Your task to perform on an android device: Open Reddit.com Image 0: 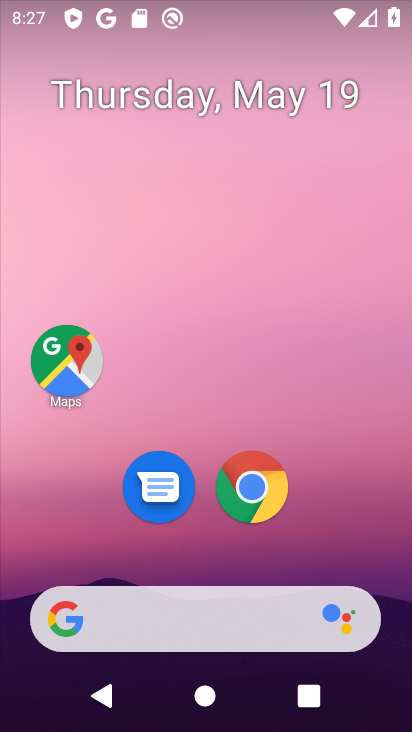
Step 0: drag from (189, 550) to (176, 21)
Your task to perform on an android device: Open Reddit.com Image 1: 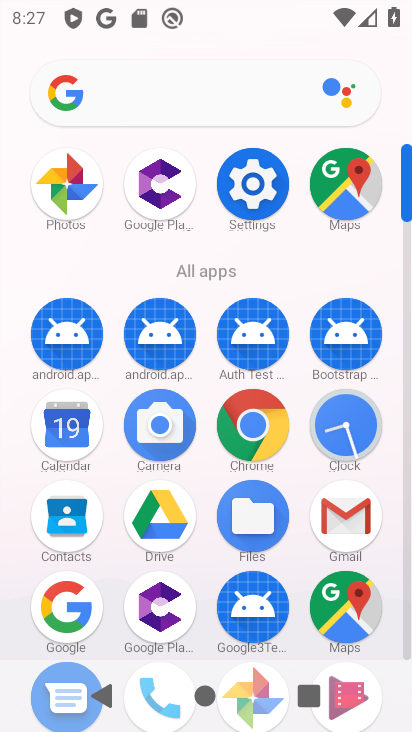
Step 1: drag from (197, 550) to (197, 88)
Your task to perform on an android device: Open Reddit.com Image 2: 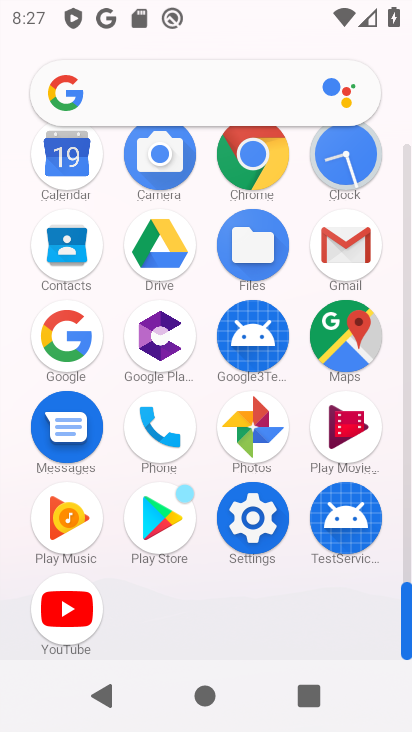
Step 2: click (261, 159)
Your task to perform on an android device: Open Reddit.com Image 3: 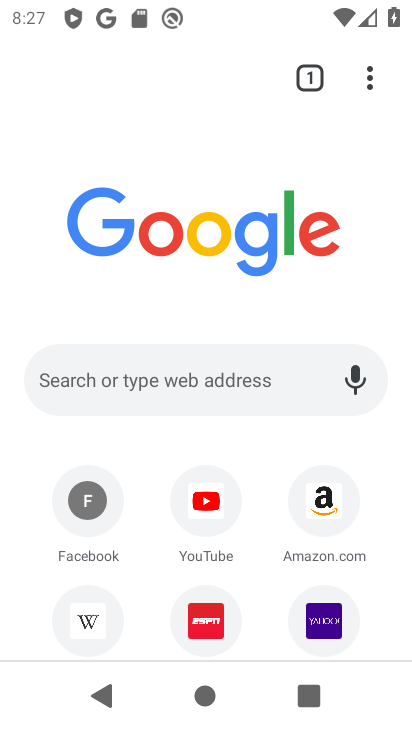
Step 3: click (135, 398)
Your task to perform on an android device: Open Reddit.com Image 4: 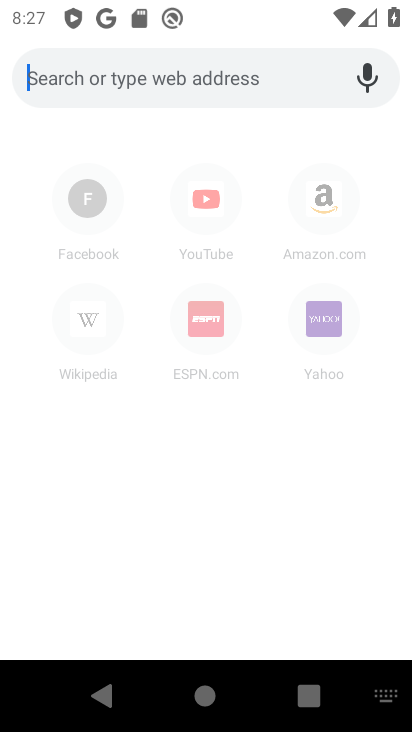
Step 4: type "reddit"
Your task to perform on an android device: Open Reddit.com Image 5: 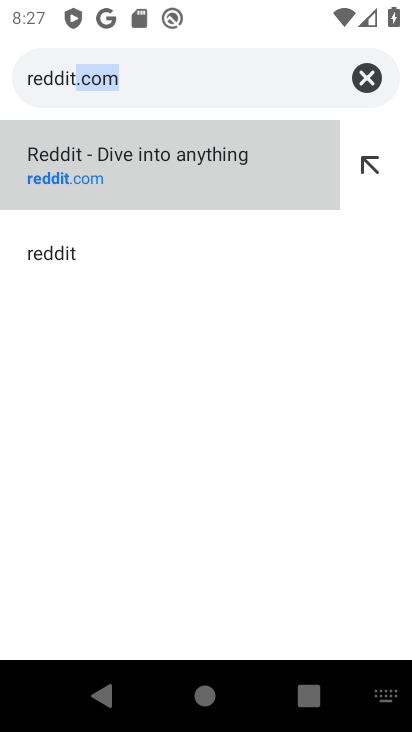
Step 5: click (175, 202)
Your task to perform on an android device: Open Reddit.com Image 6: 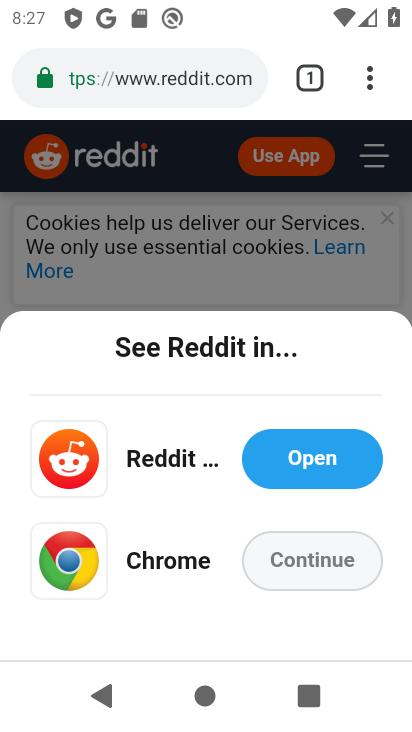
Step 6: click (315, 548)
Your task to perform on an android device: Open Reddit.com Image 7: 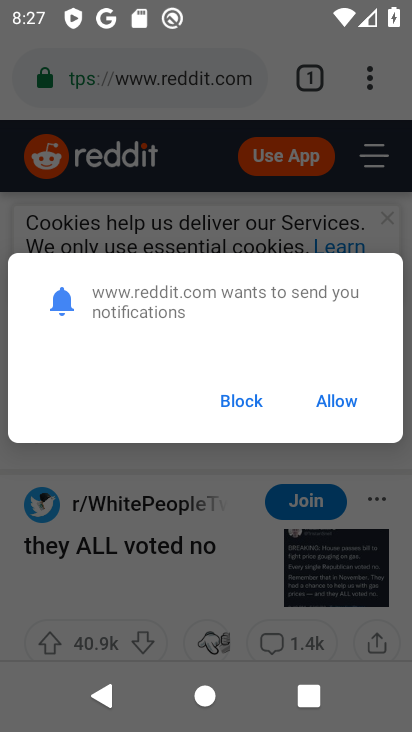
Step 7: click (341, 408)
Your task to perform on an android device: Open Reddit.com Image 8: 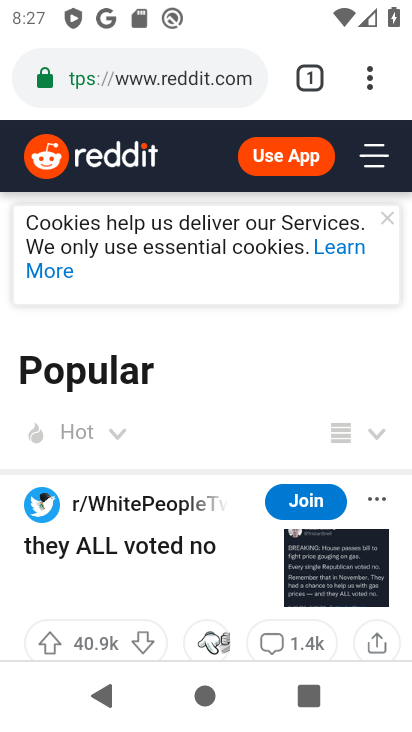
Step 8: task complete